Your task to perform on an android device: turn on data saver in the chrome app Image 0: 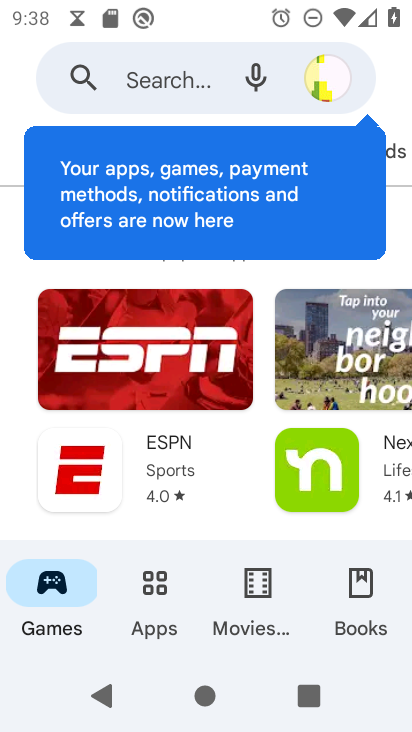
Step 0: press home button
Your task to perform on an android device: turn on data saver in the chrome app Image 1: 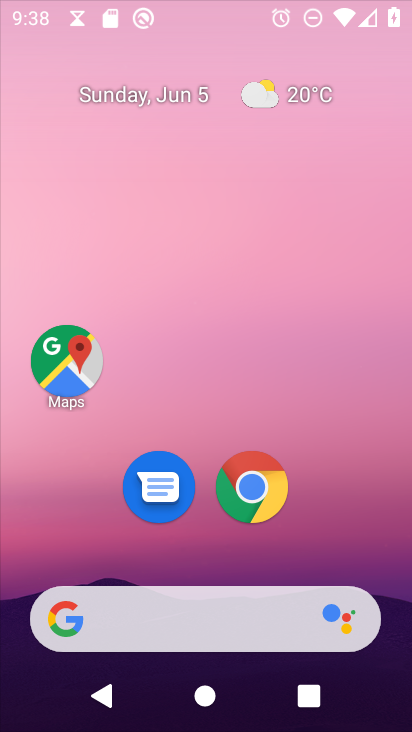
Step 1: drag from (232, 520) to (239, 185)
Your task to perform on an android device: turn on data saver in the chrome app Image 2: 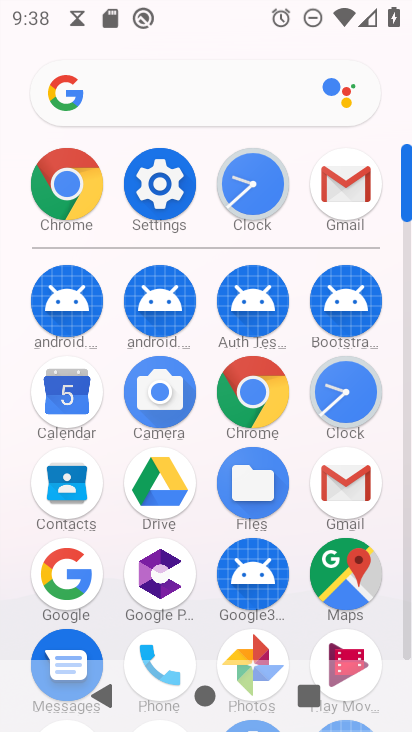
Step 2: click (72, 183)
Your task to perform on an android device: turn on data saver in the chrome app Image 3: 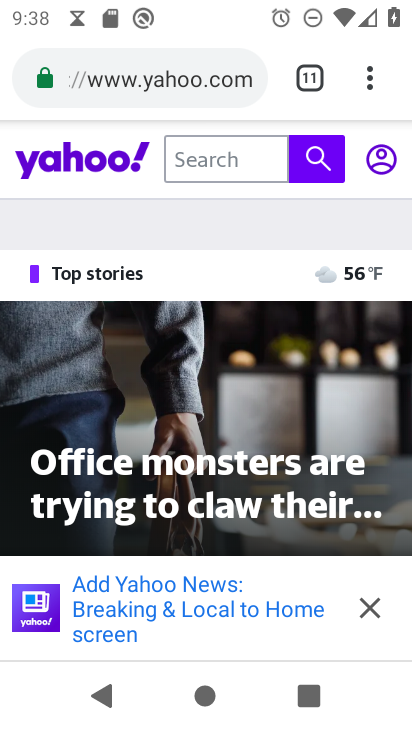
Step 3: click (377, 71)
Your task to perform on an android device: turn on data saver in the chrome app Image 4: 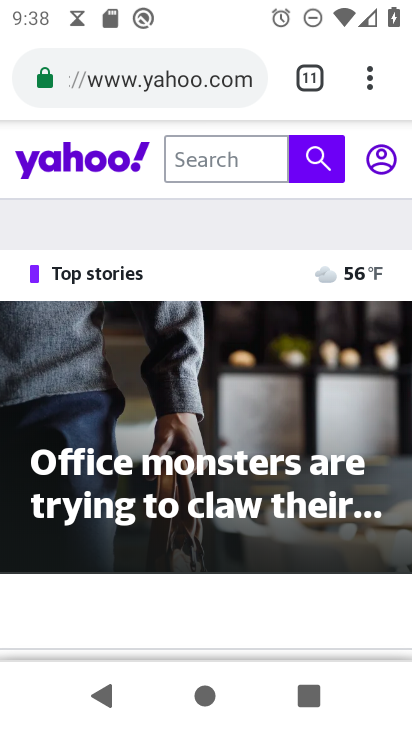
Step 4: click (357, 75)
Your task to perform on an android device: turn on data saver in the chrome app Image 5: 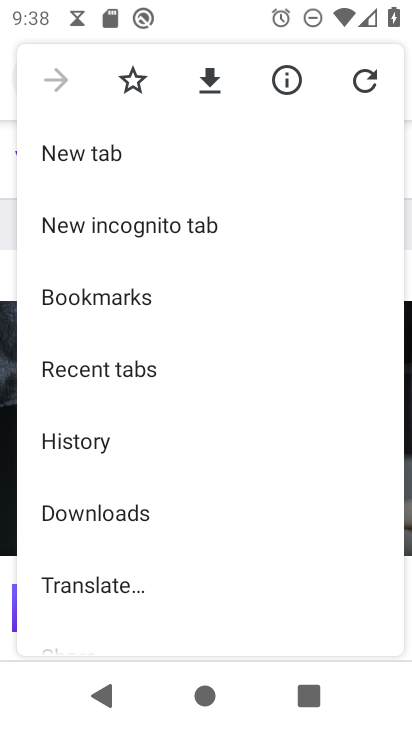
Step 5: drag from (166, 521) to (199, 213)
Your task to perform on an android device: turn on data saver in the chrome app Image 6: 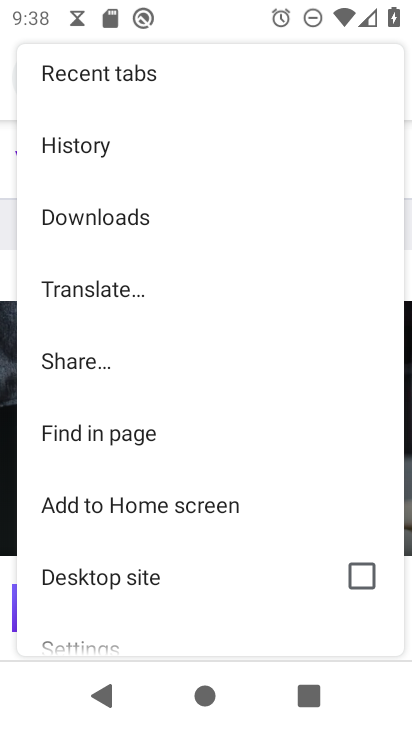
Step 6: drag from (121, 523) to (173, 277)
Your task to perform on an android device: turn on data saver in the chrome app Image 7: 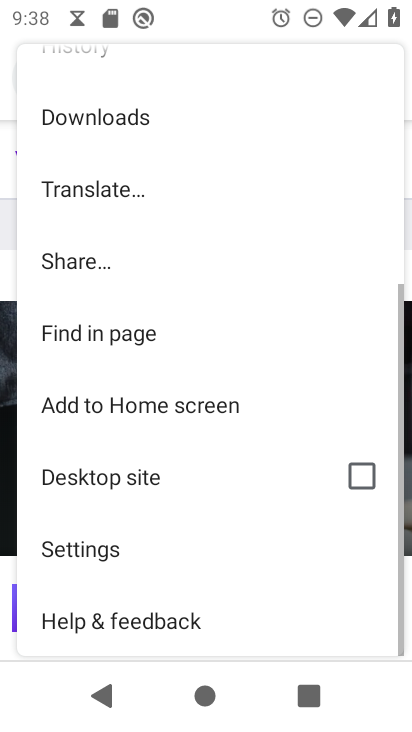
Step 7: click (114, 539)
Your task to perform on an android device: turn on data saver in the chrome app Image 8: 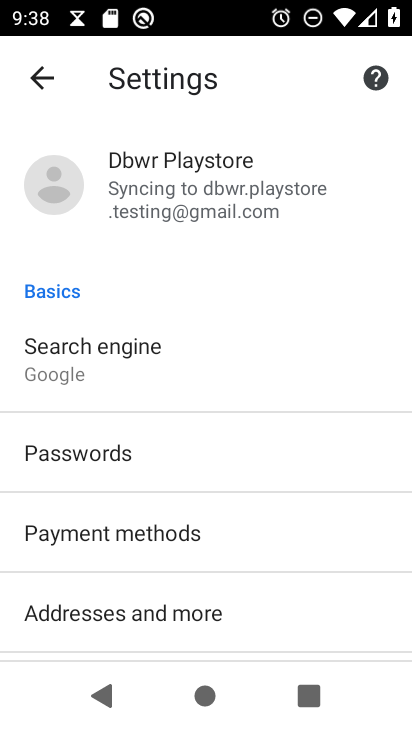
Step 8: drag from (269, 570) to (249, 244)
Your task to perform on an android device: turn on data saver in the chrome app Image 9: 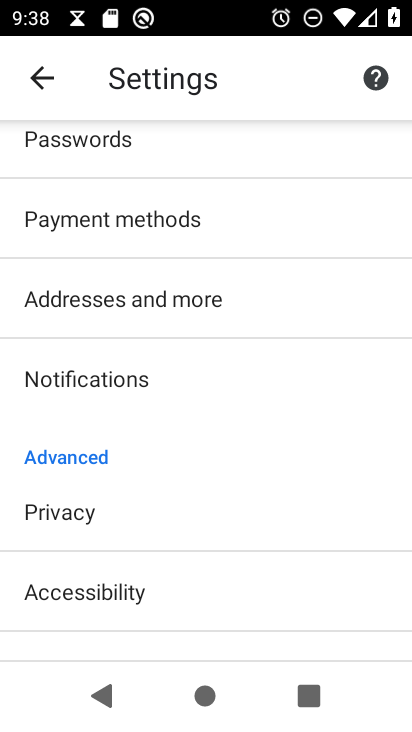
Step 9: drag from (137, 532) to (222, 223)
Your task to perform on an android device: turn on data saver in the chrome app Image 10: 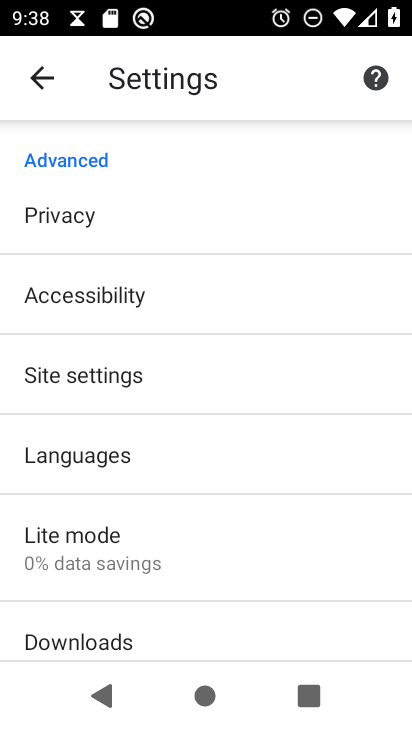
Step 10: click (109, 546)
Your task to perform on an android device: turn on data saver in the chrome app Image 11: 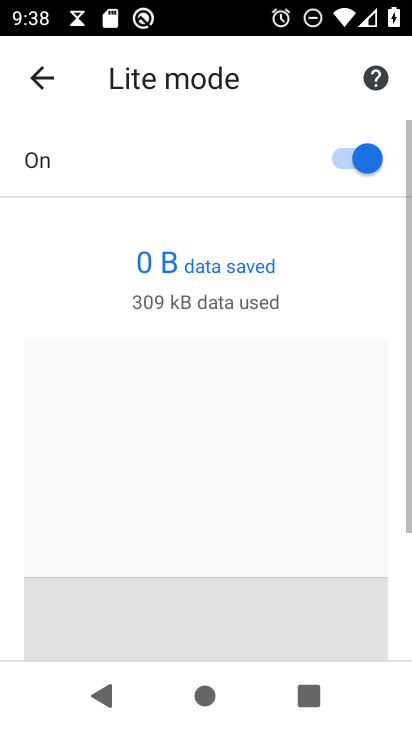
Step 11: click (365, 142)
Your task to perform on an android device: turn on data saver in the chrome app Image 12: 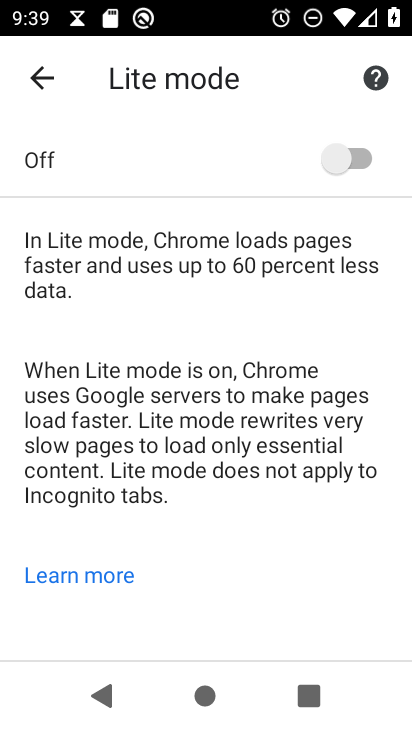
Step 12: task complete